Your task to perform on an android device: make emails show in primary in the gmail app Image 0: 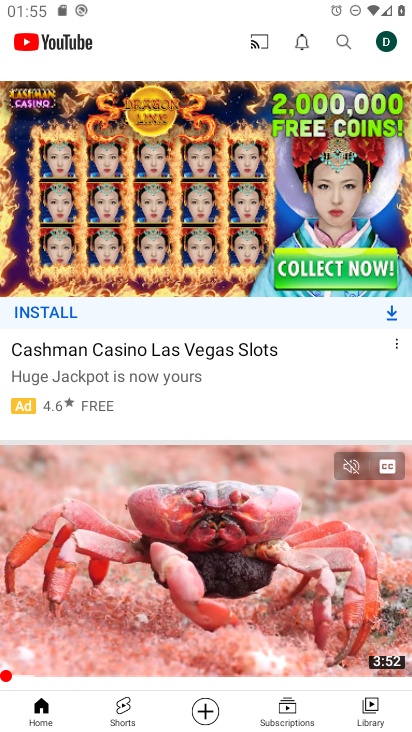
Step 0: press home button
Your task to perform on an android device: make emails show in primary in the gmail app Image 1: 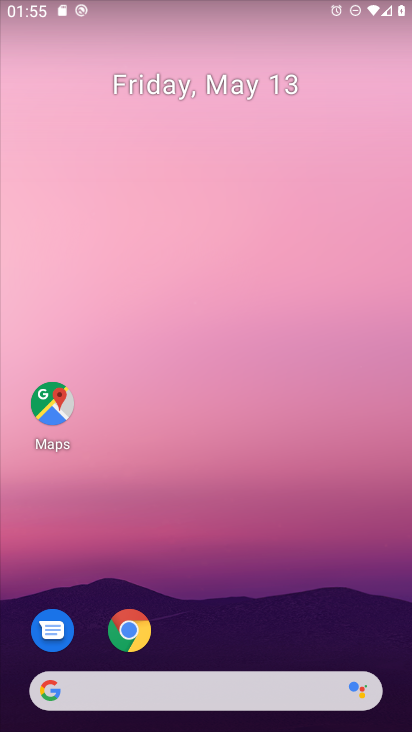
Step 1: drag from (261, 706) to (201, 235)
Your task to perform on an android device: make emails show in primary in the gmail app Image 2: 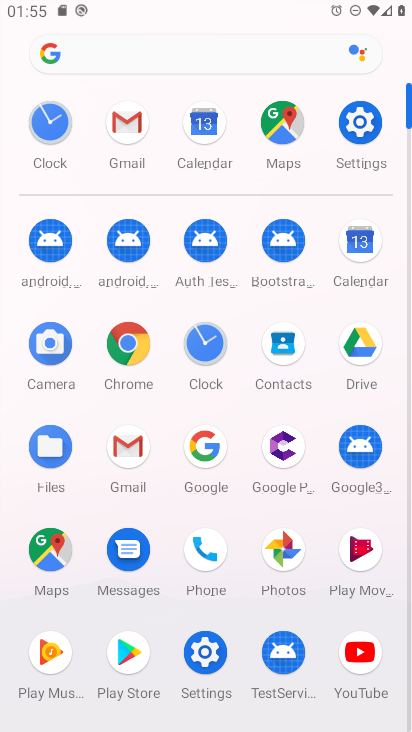
Step 2: click (112, 446)
Your task to perform on an android device: make emails show in primary in the gmail app Image 3: 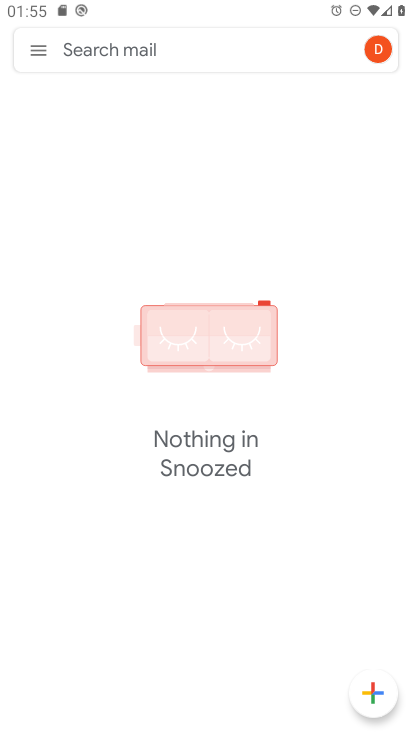
Step 3: click (44, 58)
Your task to perform on an android device: make emails show in primary in the gmail app Image 4: 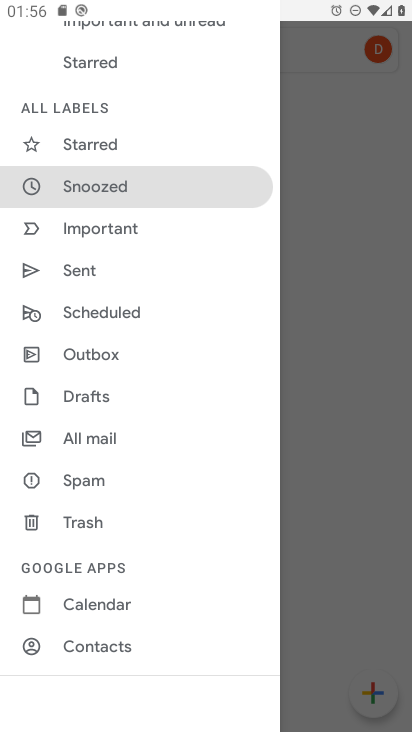
Step 4: drag from (124, 498) to (237, 332)
Your task to perform on an android device: make emails show in primary in the gmail app Image 5: 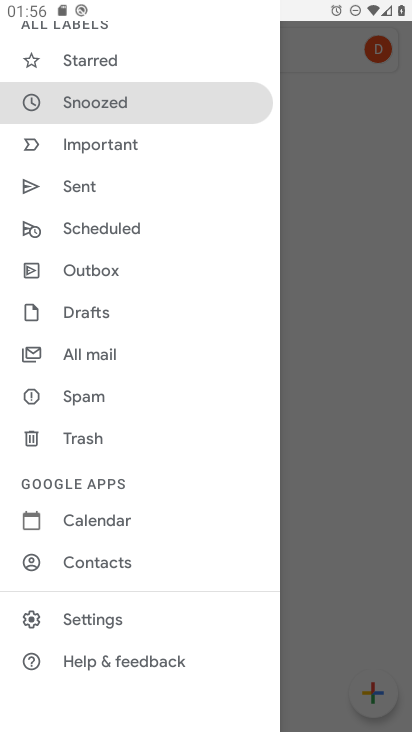
Step 5: click (102, 619)
Your task to perform on an android device: make emails show in primary in the gmail app Image 6: 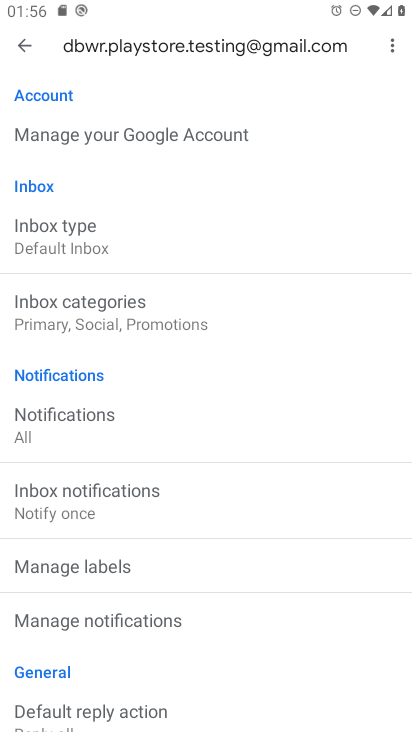
Step 6: click (103, 309)
Your task to perform on an android device: make emails show in primary in the gmail app Image 7: 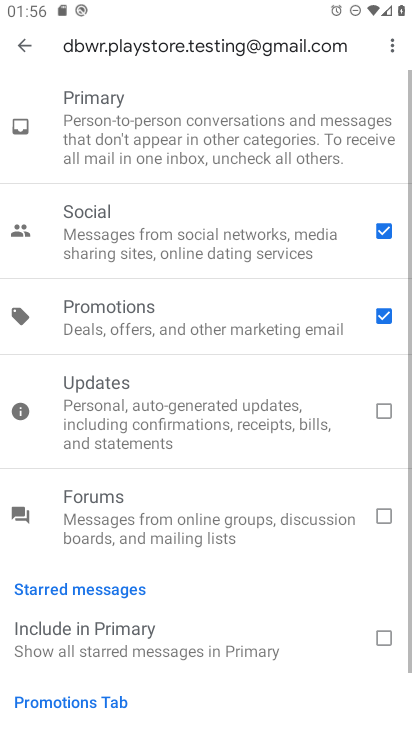
Step 7: click (181, 163)
Your task to perform on an android device: make emails show in primary in the gmail app Image 8: 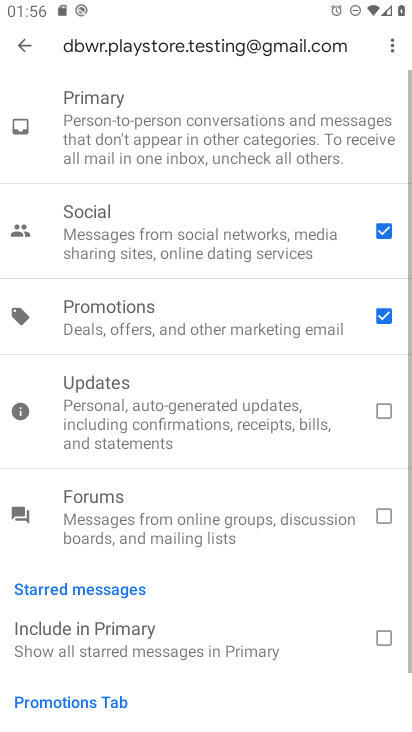
Step 8: task complete